Your task to perform on an android device: see sites visited before in the chrome app Image 0: 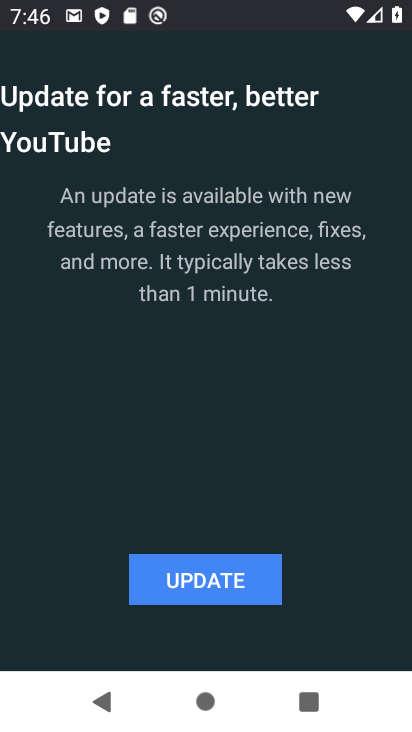
Step 0: press home button
Your task to perform on an android device: see sites visited before in the chrome app Image 1: 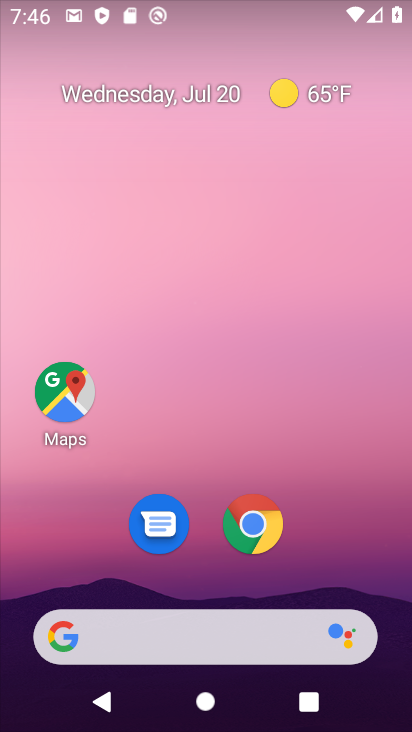
Step 1: click (250, 522)
Your task to perform on an android device: see sites visited before in the chrome app Image 2: 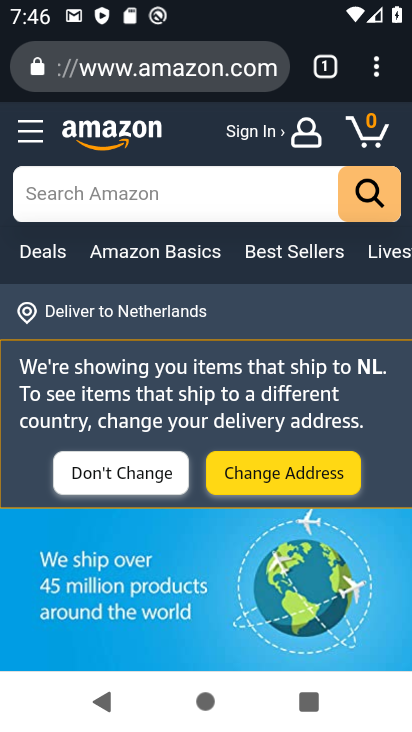
Step 2: click (375, 68)
Your task to perform on an android device: see sites visited before in the chrome app Image 3: 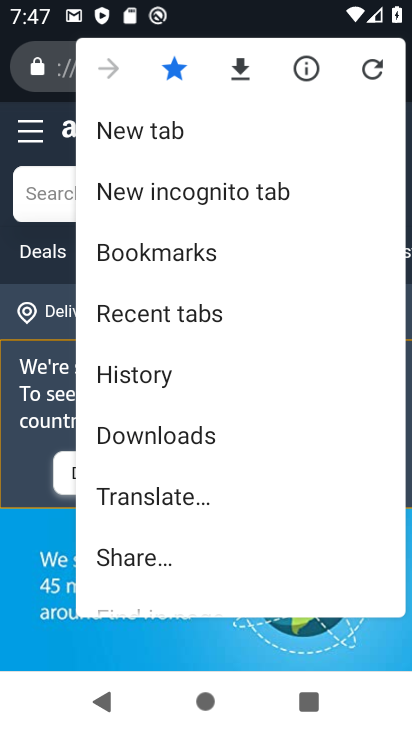
Step 3: click (199, 309)
Your task to perform on an android device: see sites visited before in the chrome app Image 4: 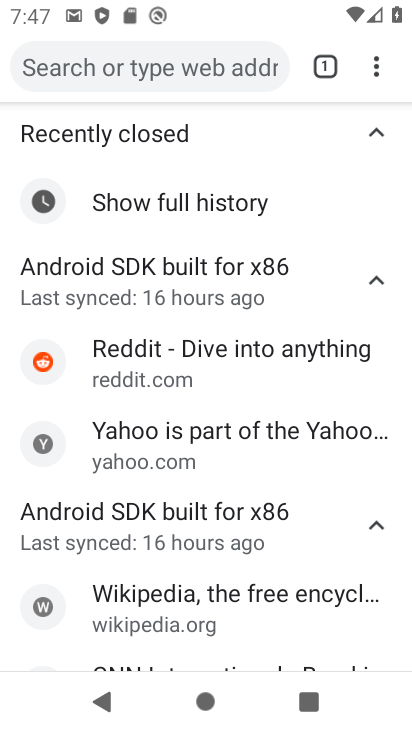
Step 4: task complete